Your task to perform on an android device: Go to ESPN.com Image 0: 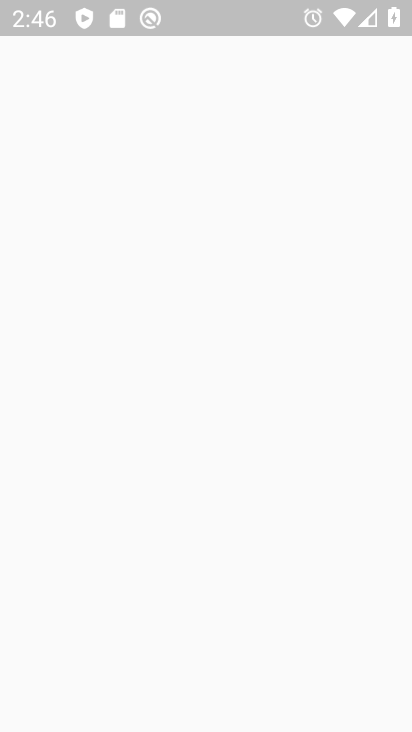
Step 0: press home button
Your task to perform on an android device: Go to ESPN.com Image 1: 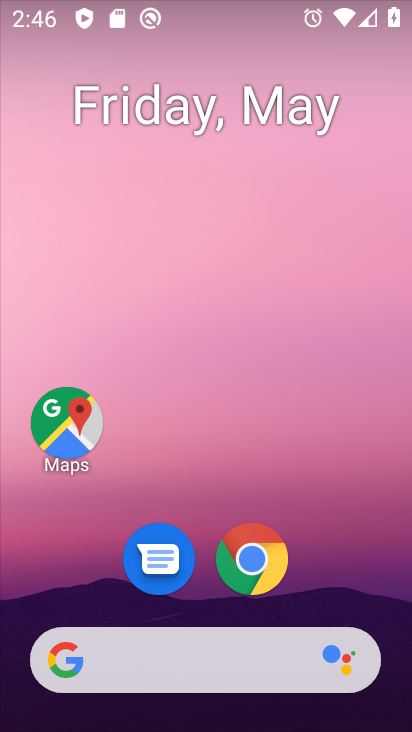
Step 1: drag from (323, 558) to (275, 211)
Your task to perform on an android device: Go to ESPN.com Image 2: 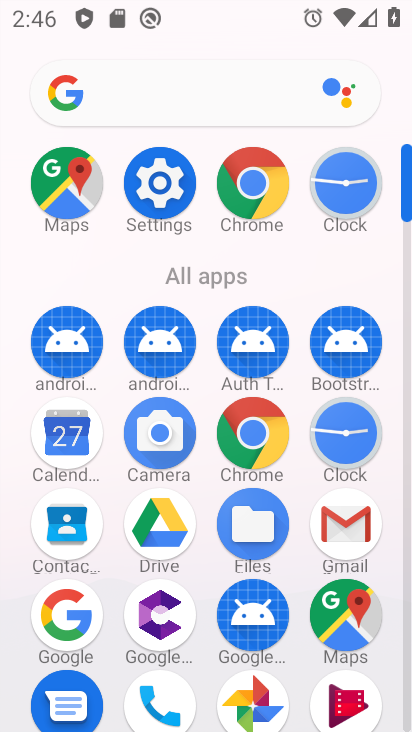
Step 2: click (218, 103)
Your task to perform on an android device: Go to ESPN.com Image 3: 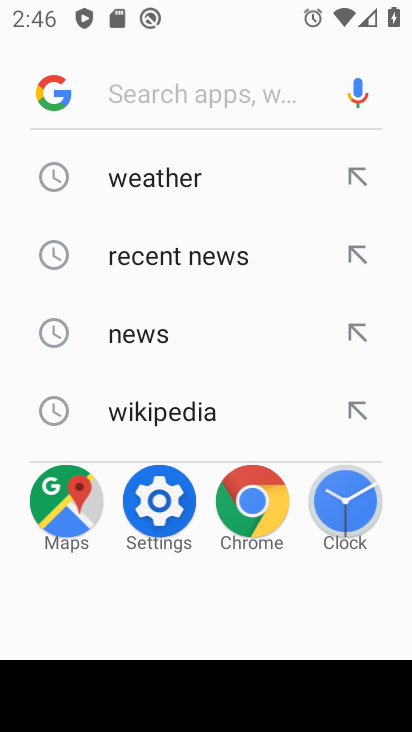
Step 3: type "espn.com"
Your task to perform on an android device: Go to ESPN.com Image 4: 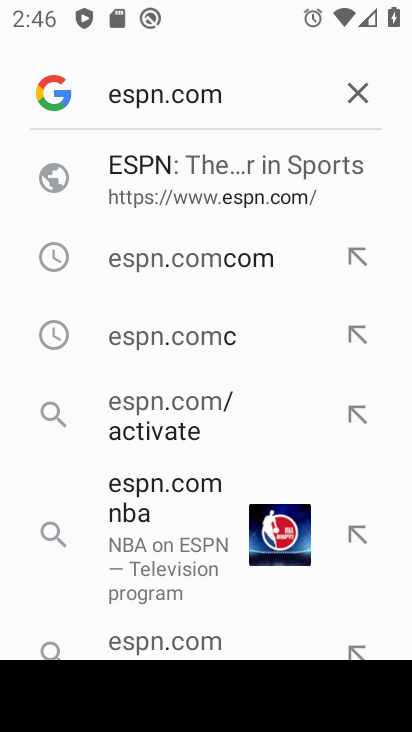
Step 4: click (252, 172)
Your task to perform on an android device: Go to ESPN.com Image 5: 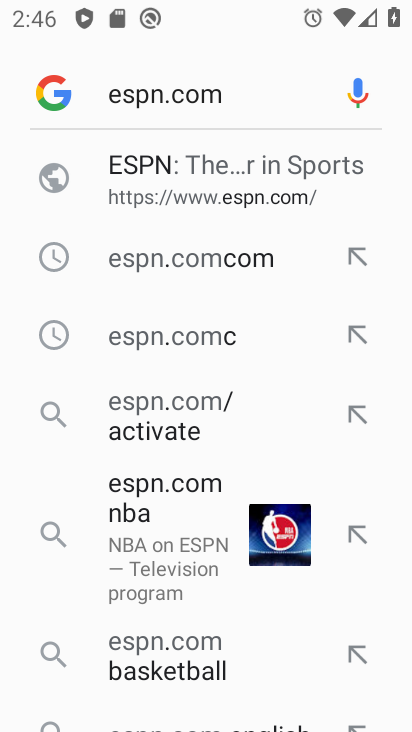
Step 5: task complete